Your task to perform on an android device: What is the news today? Image 0: 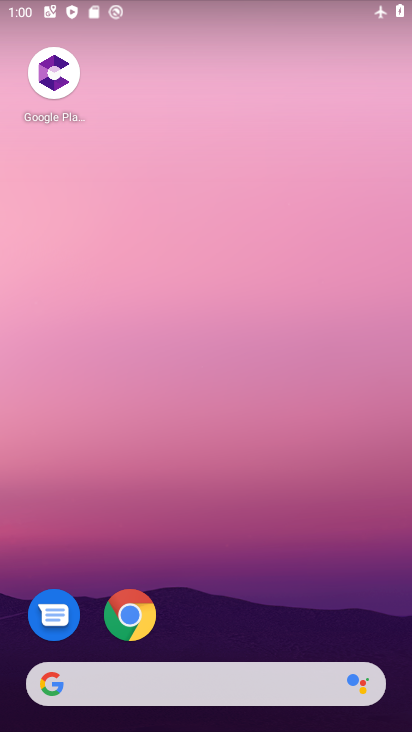
Step 0: drag from (6, 278) to (343, 294)
Your task to perform on an android device: What is the news today? Image 1: 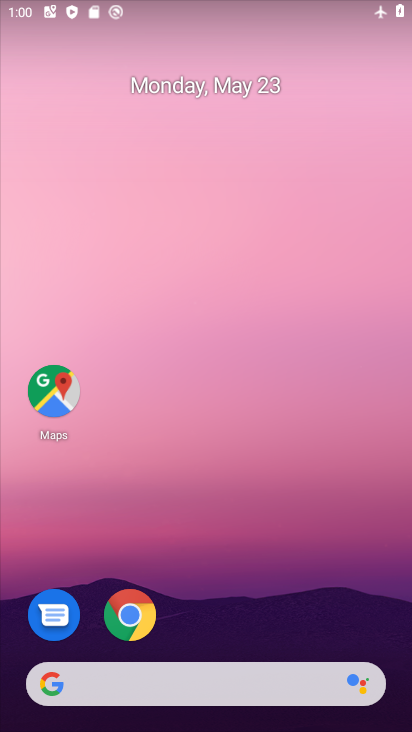
Step 1: task complete